Your task to perform on an android device: Clear the shopping cart on bestbuy. Add macbook to the cart on bestbuy, then select checkout. Image 0: 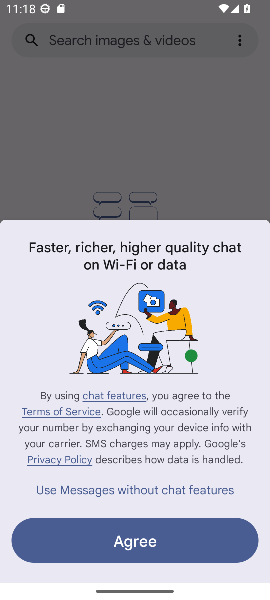
Step 0: press home button
Your task to perform on an android device: Clear the shopping cart on bestbuy. Add macbook to the cart on bestbuy, then select checkout. Image 1: 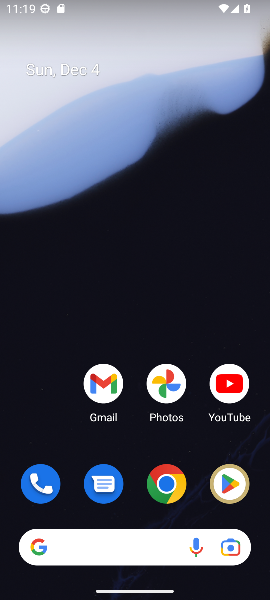
Step 1: click (168, 493)
Your task to perform on an android device: Clear the shopping cart on bestbuy. Add macbook to the cart on bestbuy, then select checkout. Image 2: 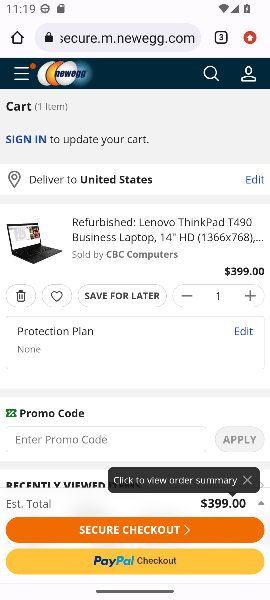
Step 2: click (126, 40)
Your task to perform on an android device: Clear the shopping cart on bestbuy. Add macbook to the cart on bestbuy, then select checkout. Image 3: 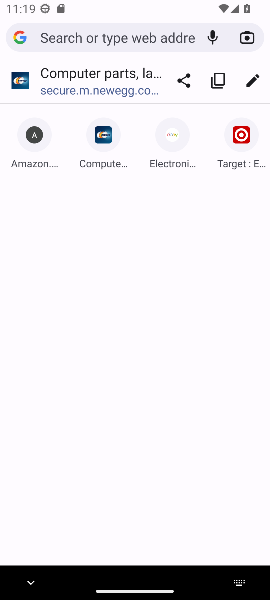
Step 3: type "bestbuy.com"
Your task to perform on an android device: Clear the shopping cart on bestbuy. Add macbook to the cart on bestbuy, then select checkout. Image 4: 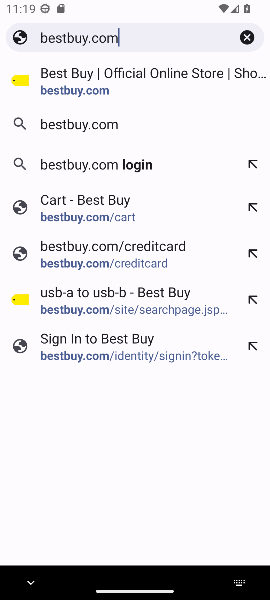
Step 4: click (90, 86)
Your task to perform on an android device: Clear the shopping cart on bestbuy. Add macbook to the cart on bestbuy, then select checkout. Image 5: 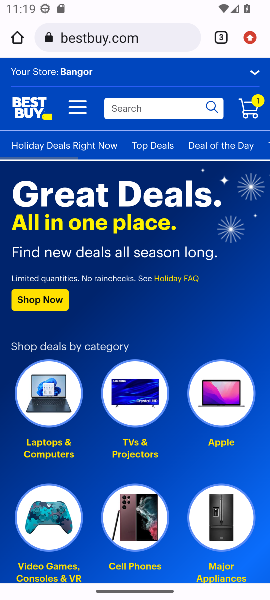
Step 5: click (251, 103)
Your task to perform on an android device: Clear the shopping cart on bestbuy. Add macbook to the cart on bestbuy, then select checkout. Image 6: 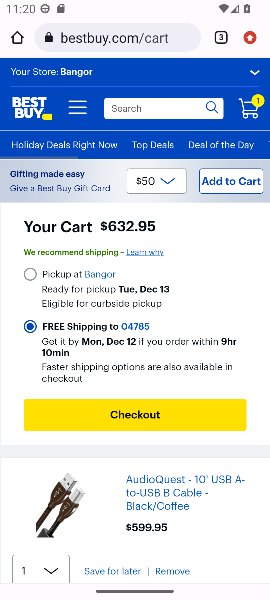
Step 6: drag from (59, 413) to (89, 221)
Your task to perform on an android device: Clear the shopping cart on bestbuy. Add macbook to the cart on bestbuy, then select checkout. Image 7: 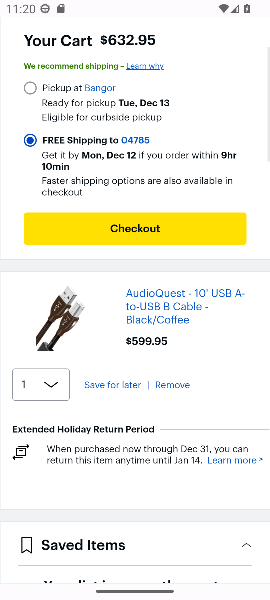
Step 7: click (172, 390)
Your task to perform on an android device: Clear the shopping cart on bestbuy. Add macbook to the cart on bestbuy, then select checkout. Image 8: 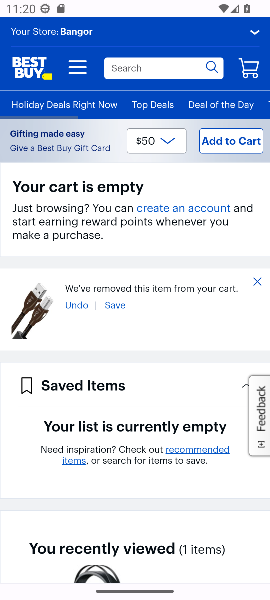
Step 8: click (212, 580)
Your task to perform on an android device: Clear the shopping cart on bestbuy. Add macbook to the cart on bestbuy, then select checkout. Image 9: 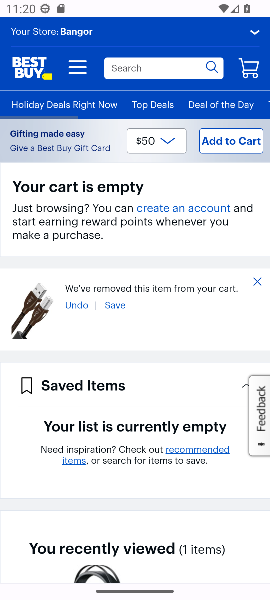
Step 9: click (136, 72)
Your task to perform on an android device: Clear the shopping cart on bestbuy. Add macbook to the cart on bestbuy, then select checkout. Image 10: 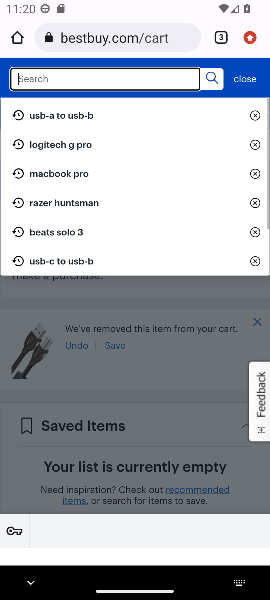
Step 10: type "macbook"
Your task to perform on an android device: Clear the shopping cart on bestbuy. Add macbook to the cart on bestbuy, then select checkout. Image 11: 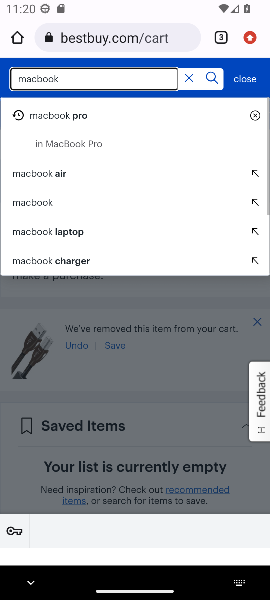
Step 11: click (40, 204)
Your task to perform on an android device: Clear the shopping cart on bestbuy. Add macbook to the cart on bestbuy, then select checkout. Image 12: 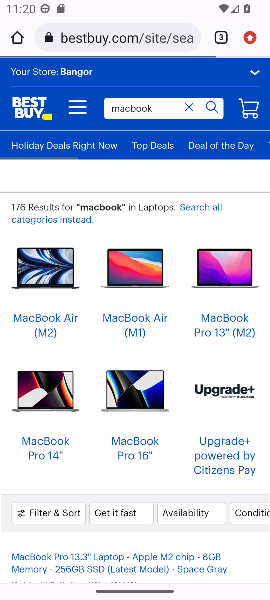
Step 12: drag from (93, 443) to (101, 193)
Your task to perform on an android device: Clear the shopping cart on bestbuy. Add macbook to the cart on bestbuy, then select checkout. Image 13: 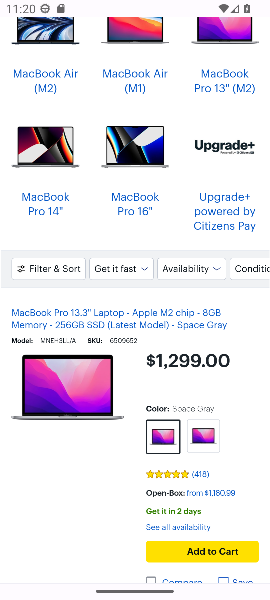
Step 13: click (196, 525)
Your task to perform on an android device: Clear the shopping cart on bestbuy. Add macbook to the cart on bestbuy, then select checkout. Image 14: 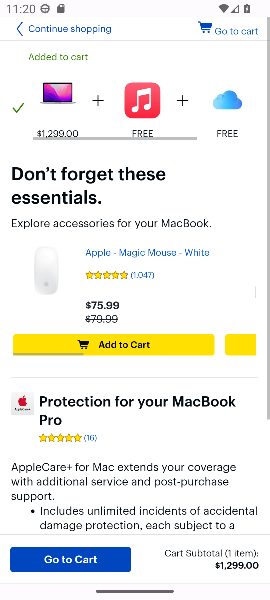
Step 14: click (230, 35)
Your task to perform on an android device: Clear the shopping cart on bestbuy. Add macbook to the cart on bestbuy, then select checkout. Image 15: 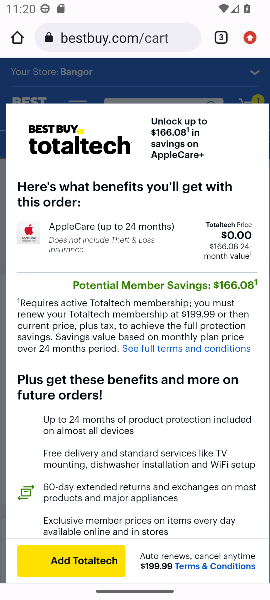
Step 15: click (126, 476)
Your task to perform on an android device: Clear the shopping cart on bestbuy. Add macbook to the cart on bestbuy, then select checkout. Image 16: 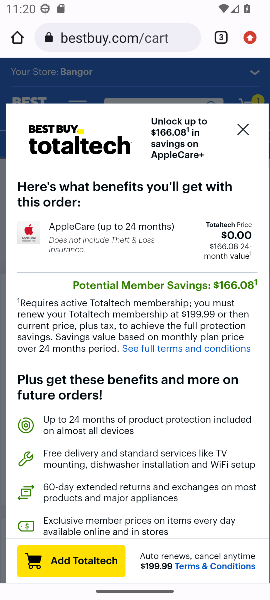
Step 16: click (238, 132)
Your task to perform on an android device: Clear the shopping cart on bestbuy. Add macbook to the cart on bestbuy, then select checkout. Image 17: 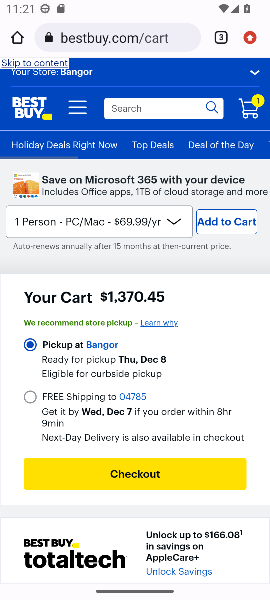
Step 17: click (130, 477)
Your task to perform on an android device: Clear the shopping cart on bestbuy. Add macbook to the cart on bestbuy, then select checkout. Image 18: 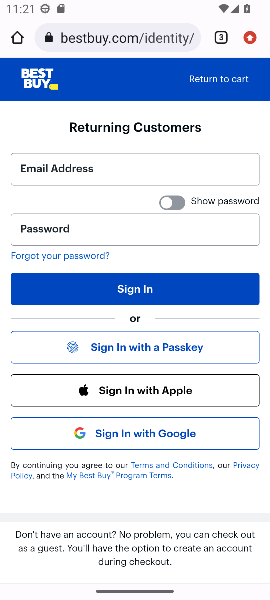
Step 18: task complete